Your task to perform on an android device: Go to eBay Image 0: 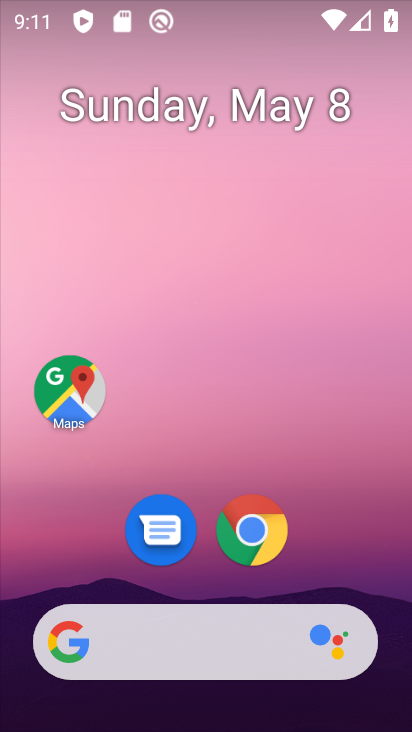
Step 0: click (242, 545)
Your task to perform on an android device: Go to eBay Image 1: 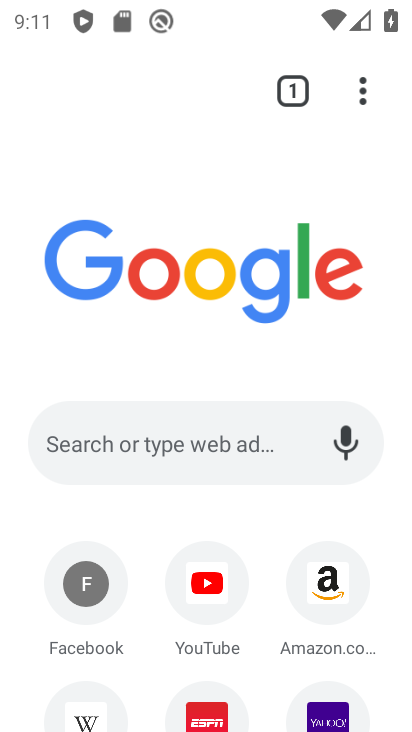
Step 1: drag from (284, 693) to (268, 345)
Your task to perform on an android device: Go to eBay Image 2: 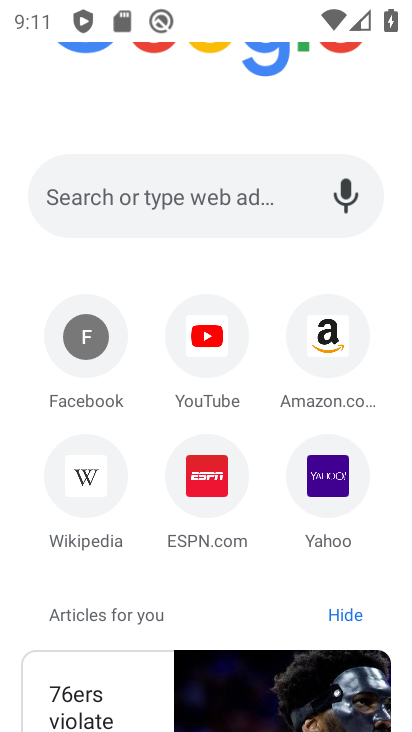
Step 2: click (142, 190)
Your task to perform on an android device: Go to eBay Image 3: 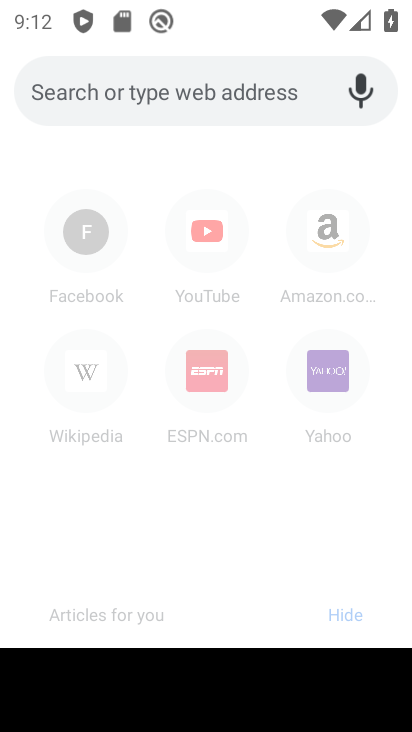
Step 3: type "ebay"
Your task to perform on an android device: Go to eBay Image 4: 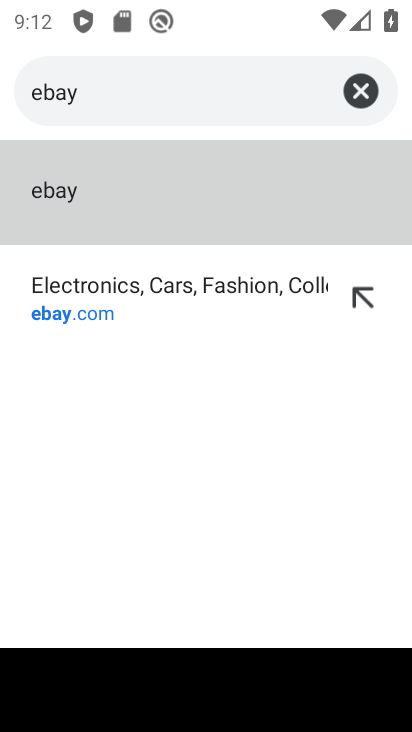
Step 4: click (127, 302)
Your task to perform on an android device: Go to eBay Image 5: 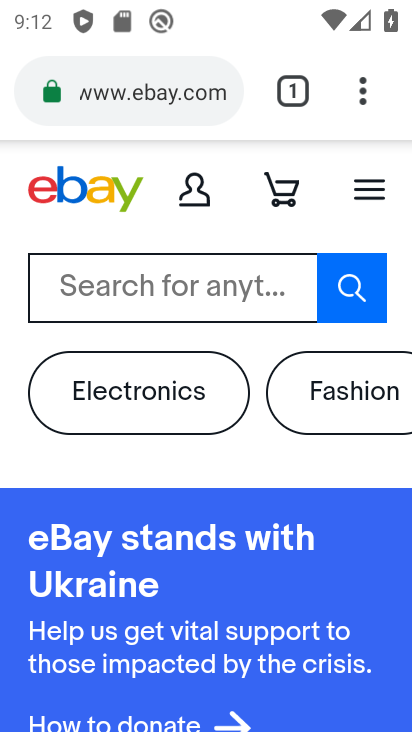
Step 5: task complete